Your task to perform on an android device: Open calendar and show me the first week of next month Image 0: 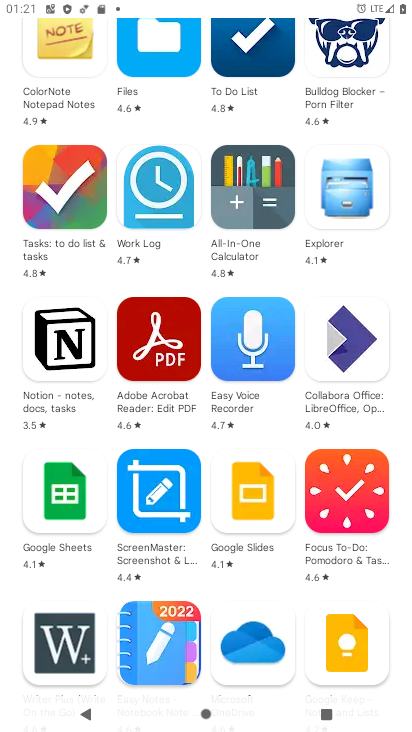
Step 0: press home button
Your task to perform on an android device: Open calendar and show me the first week of next month Image 1: 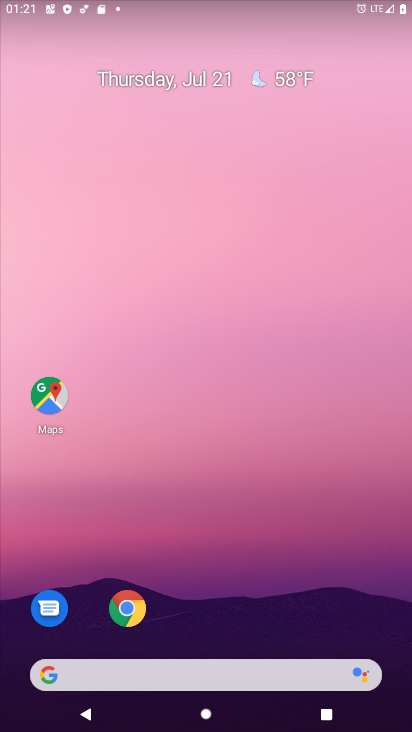
Step 1: drag from (219, 582) to (200, 3)
Your task to perform on an android device: Open calendar and show me the first week of next month Image 2: 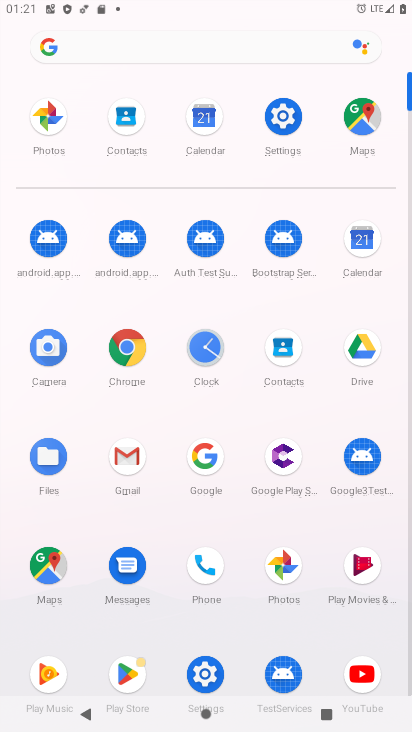
Step 2: click (363, 234)
Your task to perform on an android device: Open calendar and show me the first week of next month Image 3: 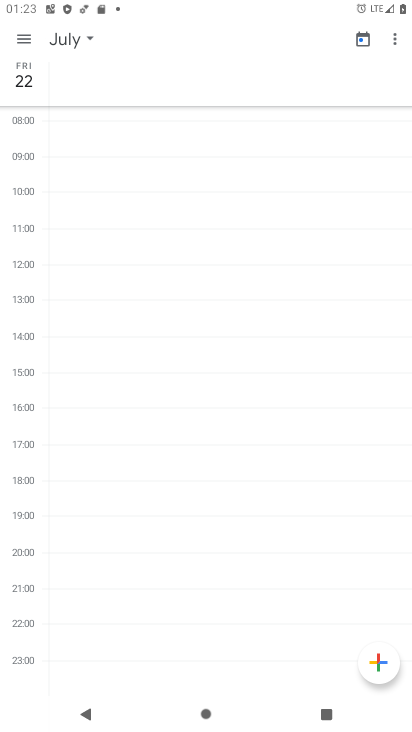
Step 3: click (34, 83)
Your task to perform on an android device: Open calendar and show me the first week of next month Image 4: 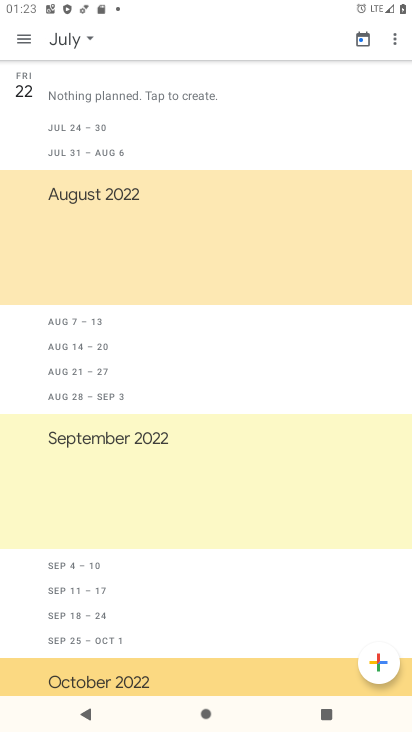
Step 4: click (88, 40)
Your task to perform on an android device: Open calendar and show me the first week of next month Image 5: 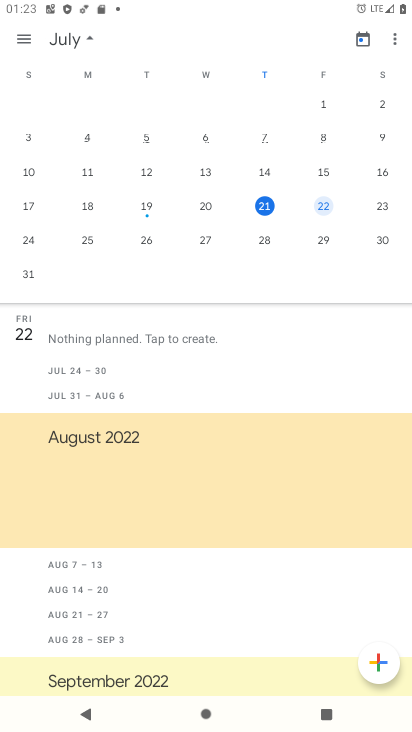
Step 5: drag from (376, 189) to (7, 237)
Your task to perform on an android device: Open calendar and show me the first week of next month Image 6: 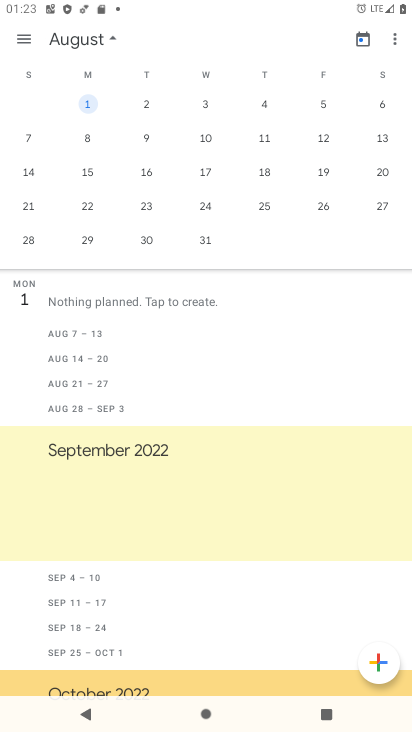
Step 6: click (87, 101)
Your task to perform on an android device: Open calendar and show me the first week of next month Image 7: 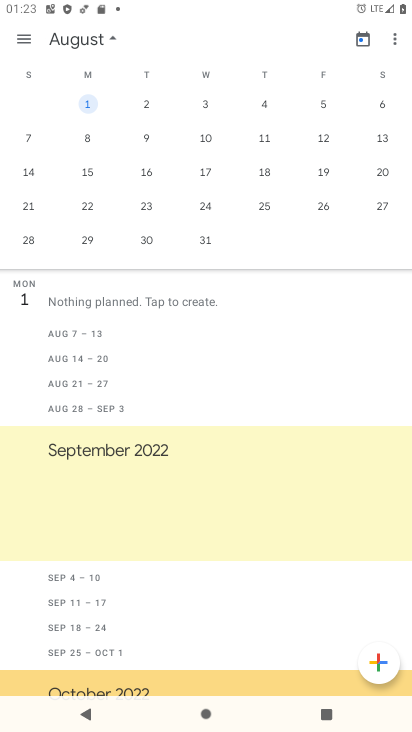
Step 7: click (108, 31)
Your task to perform on an android device: Open calendar and show me the first week of next month Image 8: 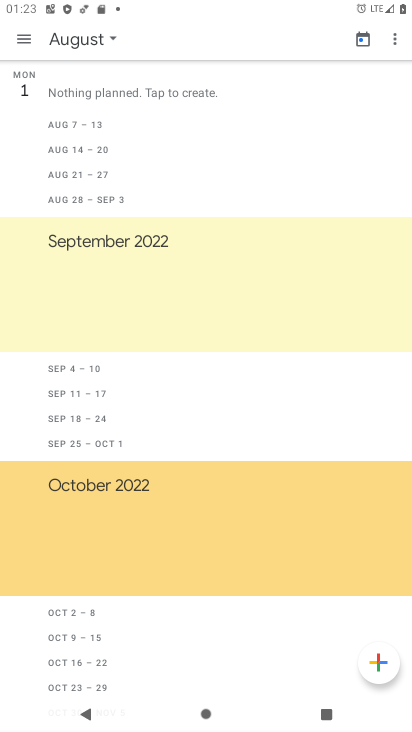
Step 8: click (23, 37)
Your task to perform on an android device: Open calendar and show me the first week of next month Image 9: 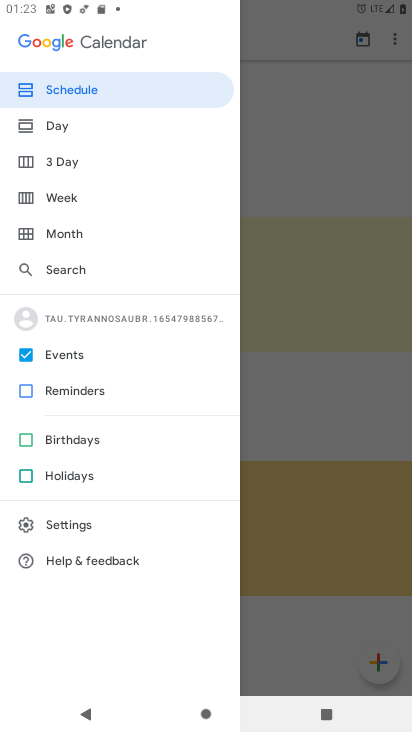
Step 9: click (73, 199)
Your task to perform on an android device: Open calendar and show me the first week of next month Image 10: 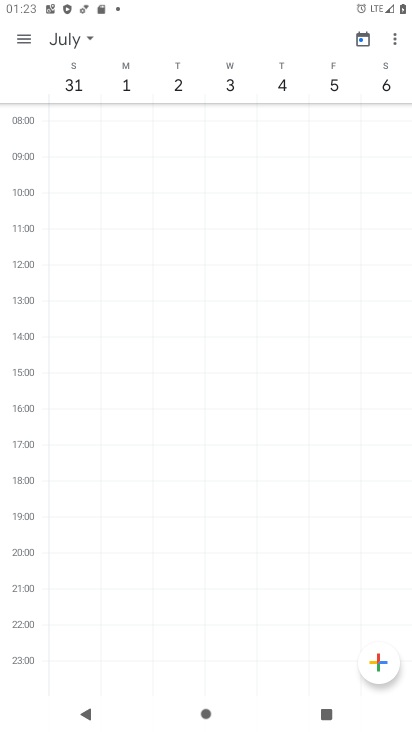
Step 10: task complete